Your task to perform on an android device: turn on improve location accuracy Image 0: 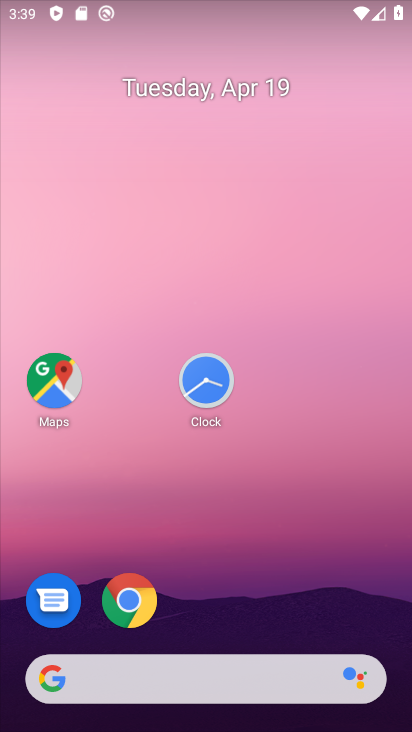
Step 0: drag from (282, 459) to (247, 201)
Your task to perform on an android device: turn on improve location accuracy Image 1: 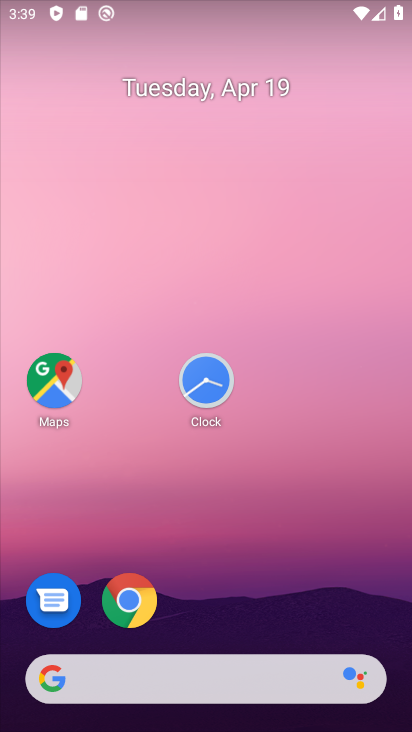
Step 1: drag from (321, 508) to (278, 154)
Your task to perform on an android device: turn on improve location accuracy Image 2: 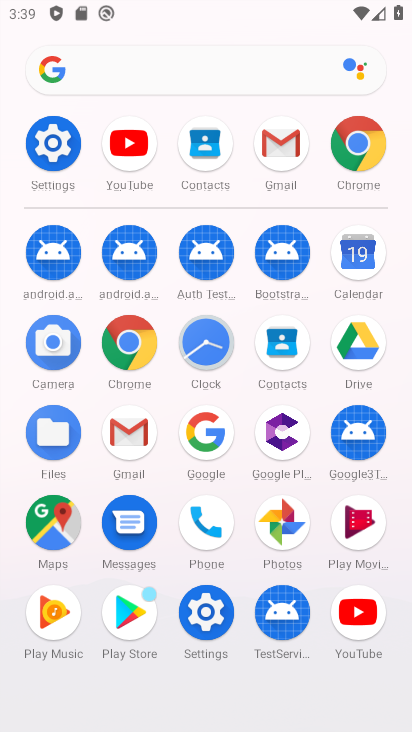
Step 2: drag from (302, 517) to (211, 177)
Your task to perform on an android device: turn on improve location accuracy Image 3: 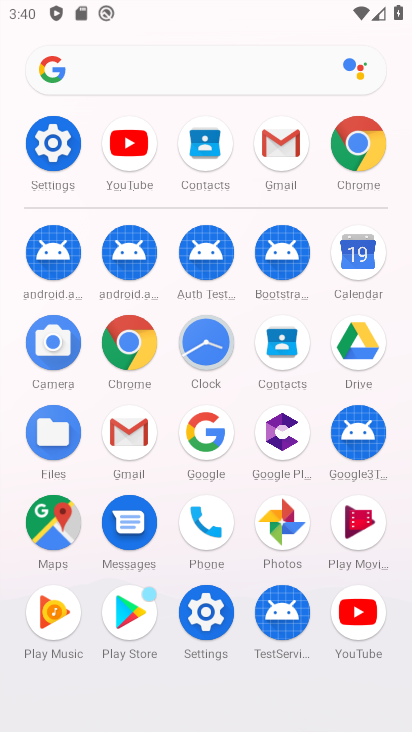
Step 3: click (55, 137)
Your task to perform on an android device: turn on improve location accuracy Image 4: 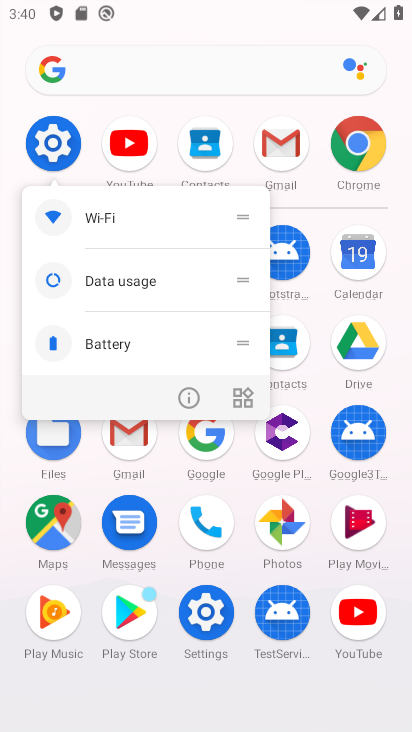
Step 4: click (55, 137)
Your task to perform on an android device: turn on improve location accuracy Image 5: 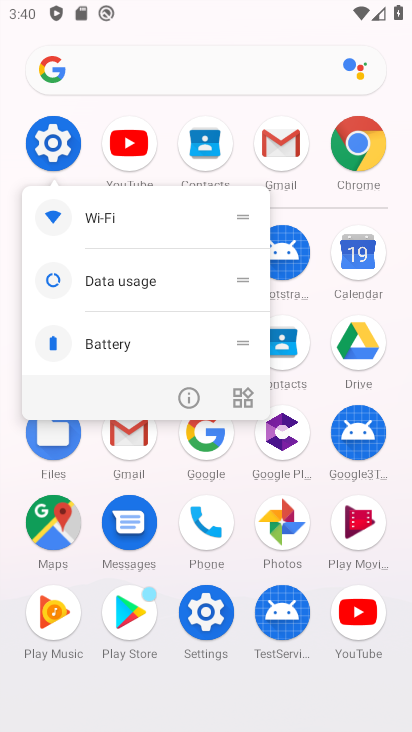
Step 5: click (62, 141)
Your task to perform on an android device: turn on improve location accuracy Image 6: 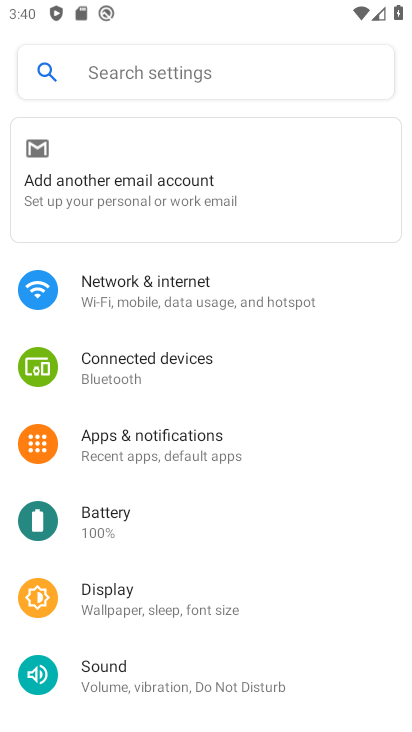
Step 6: drag from (210, 627) to (233, 313)
Your task to perform on an android device: turn on improve location accuracy Image 7: 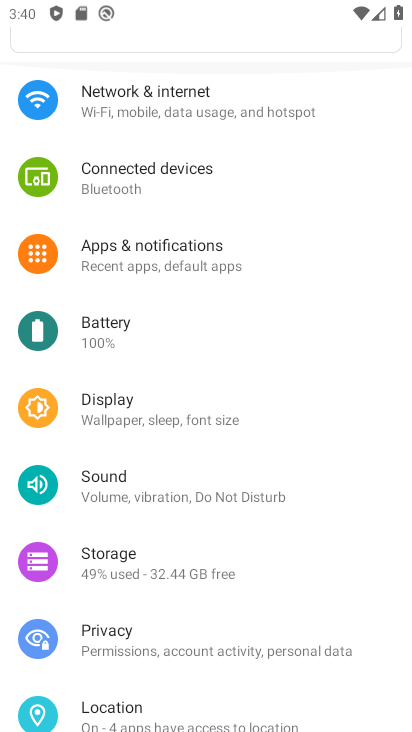
Step 7: drag from (268, 463) to (260, 150)
Your task to perform on an android device: turn on improve location accuracy Image 8: 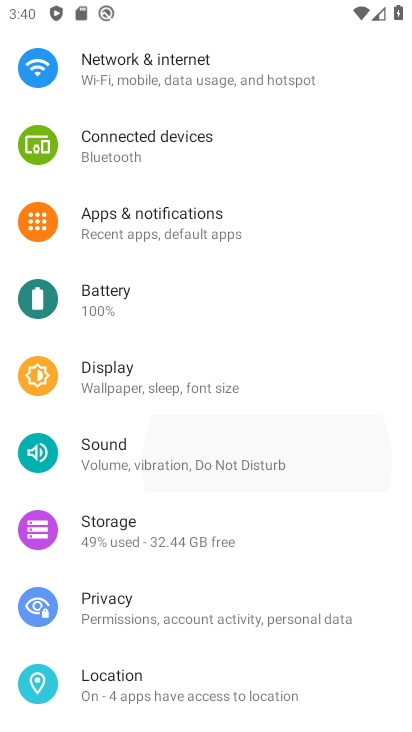
Step 8: drag from (256, 490) to (257, 174)
Your task to perform on an android device: turn on improve location accuracy Image 9: 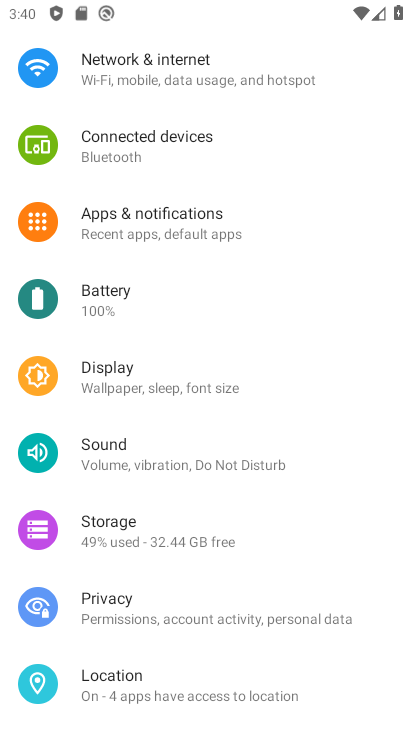
Step 9: click (142, 684)
Your task to perform on an android device: turn on improve location accuracy Image 10: 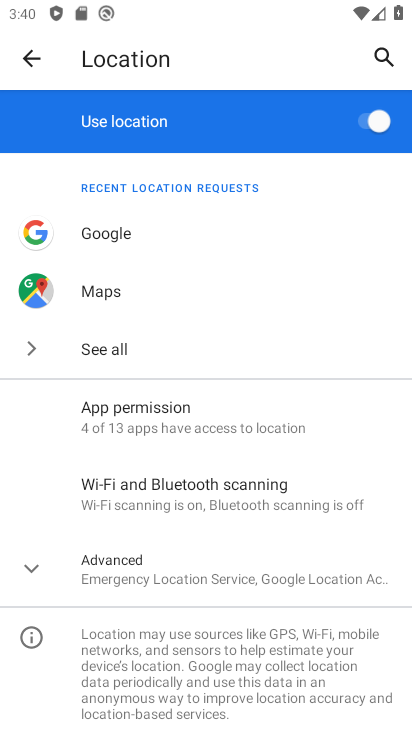
Step 10: click (156, 406)
Your task to perform on an android device: turn on improve location accuracy Image 11: 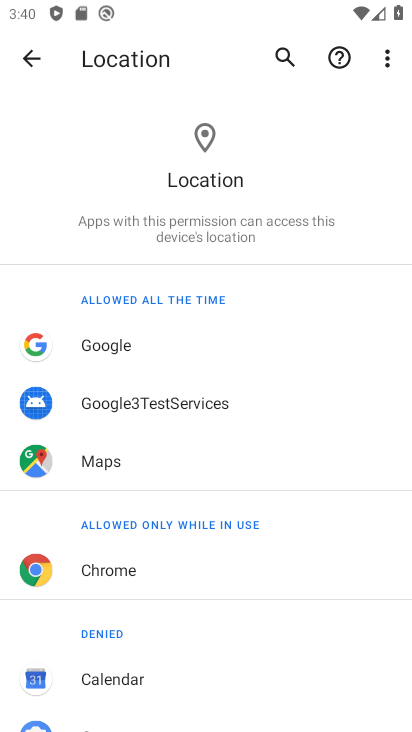
Step 11: click (32, 58)
Your task to perform on an android device: turn on improve location accuracy Image 12: 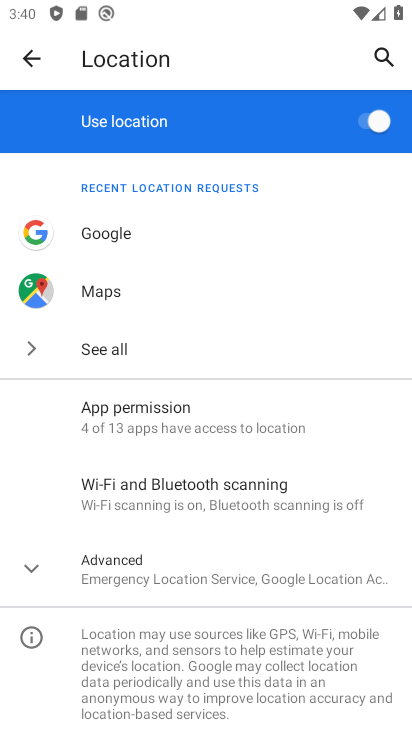
Step 12: click (162, 570)
Your task to perform on an android device: turn on improve location accuracy Image 13: 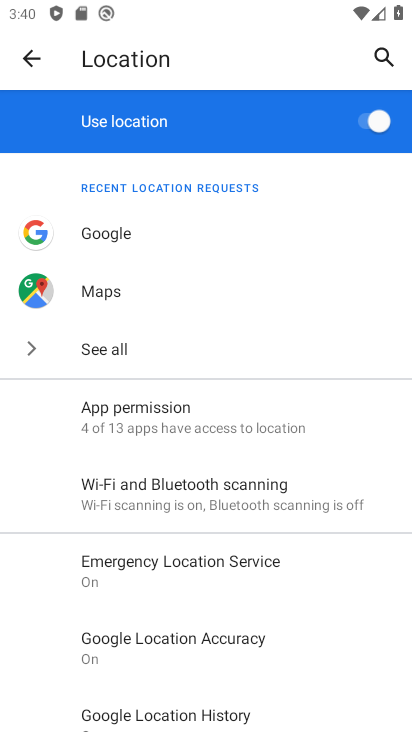
Step 13: click (167, 639)
Your task to perform on an android device: turn on improve location accuracy Image 14: 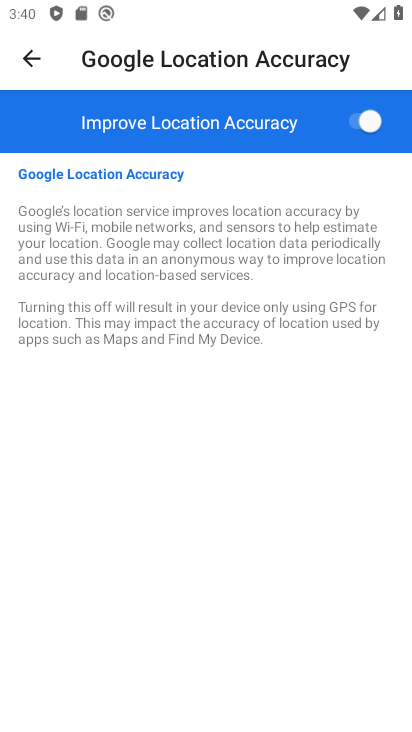
Step 14: task complete